Your task to perform on an android device: Clear all items from cart on bestbuy.com. Search for usb-a on bestbuy.com, select the first entry, and add it to the cart. Image 0: 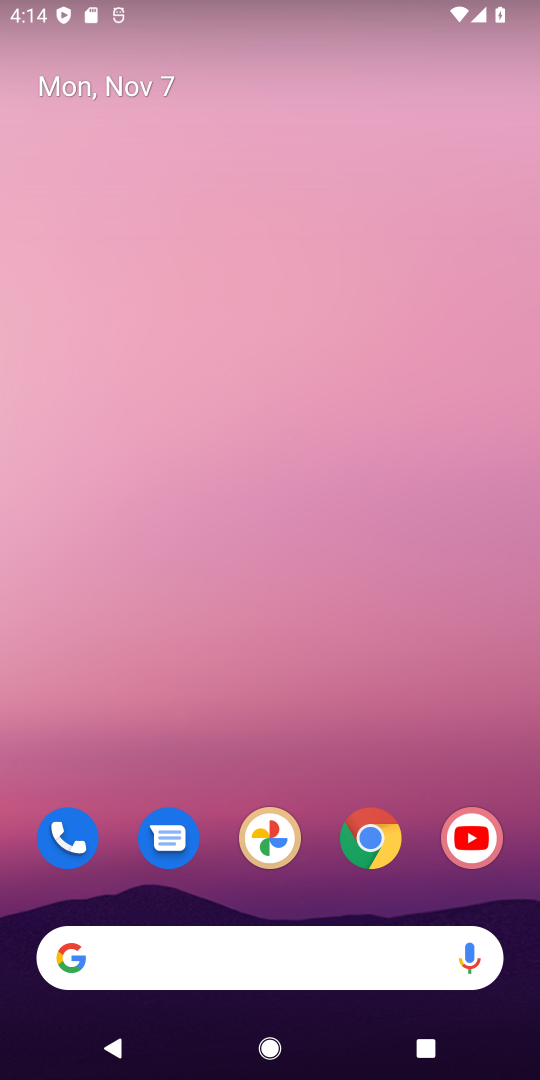
Step 0: click (367, 826)
Your task to perform on an android device: Clear all items from cart on bestbuy.com. Search for usb-a on bestbuy.com, select the first entry, and add it to the cart. Image 1: 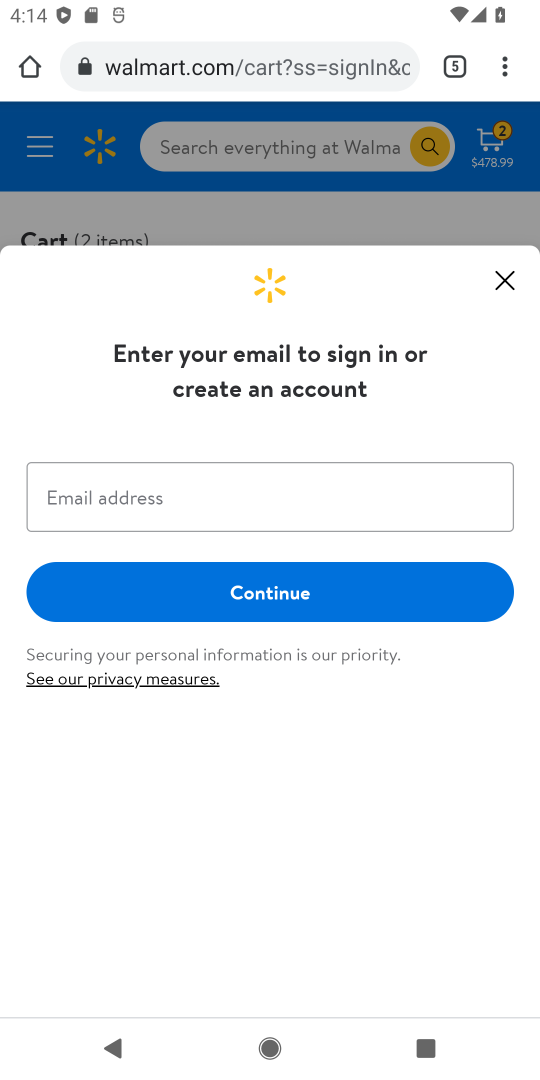
Step 1: click (460, 68)
Your task to perform on an android device: Clear all items from cart on bestbuy.com. Search for usb-a on bestbuy.com, select the first entry, and add it to the cart. Image 2: 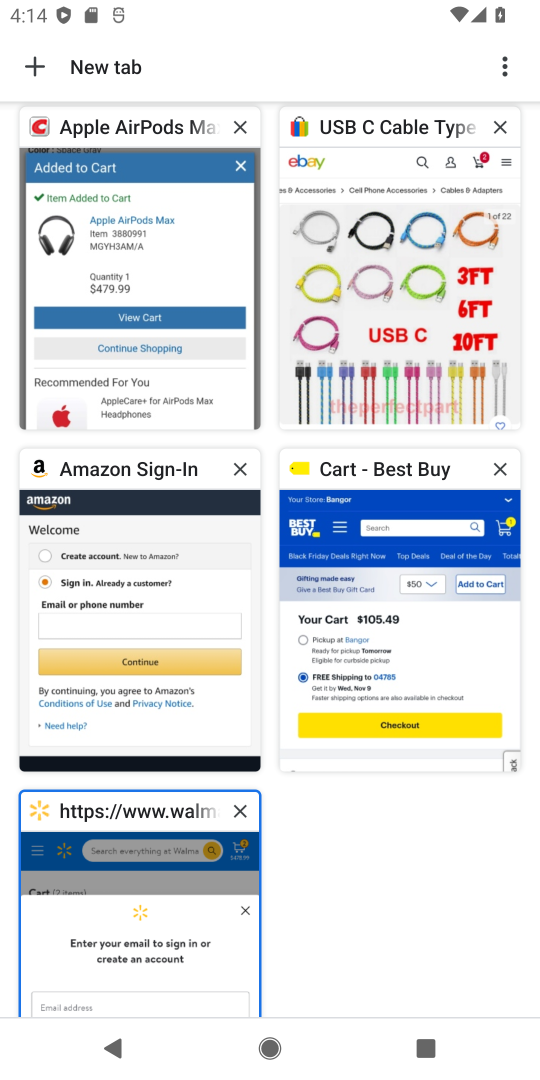
Step 2: click (391, 618)
Your task to perform on an android device: Clear all items from cart on bestbuy.com. Search for usb-a on bestbuy.com, select the first entry, and add it to the cart. Image 3: 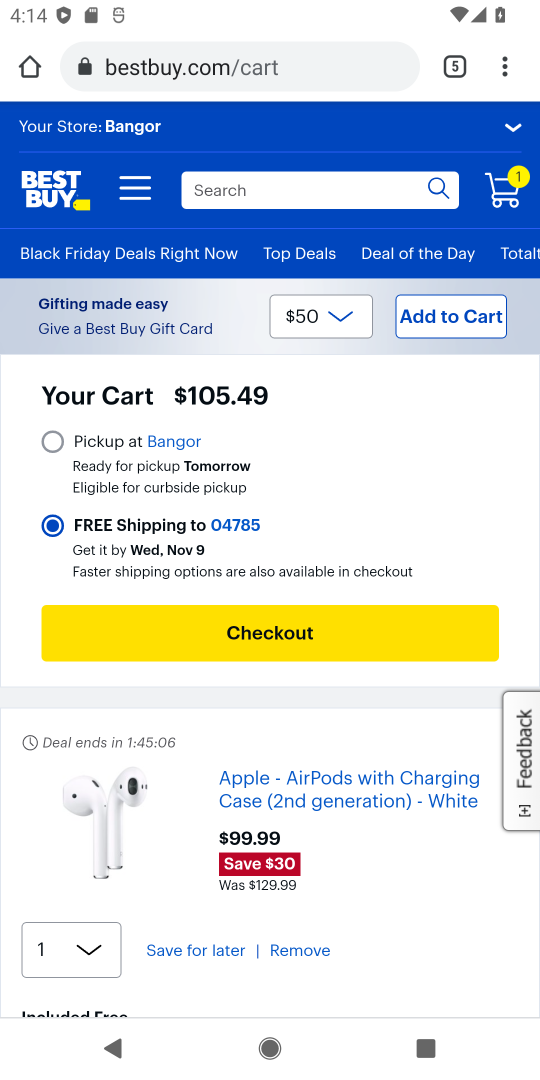
Step 3: click (290, 947)
Your task to perform on an android device: Clear all items from cart on bestbuy.com. Search for usb-a on bestbuy.com, select the first entry, and add it to the cart. Image 4: 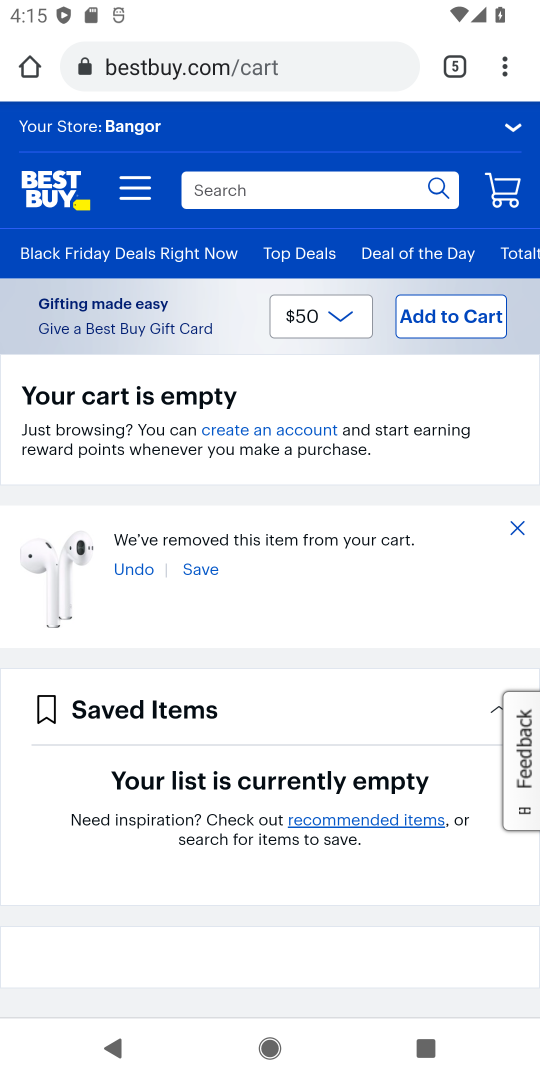
Step 4: click (232, 183)
Your task to perform on an android device: Clear all items from cart on bestbuy.com. Search for usb-a on bestbuy.com, select the first entry, and add it to the cart. Image 5: 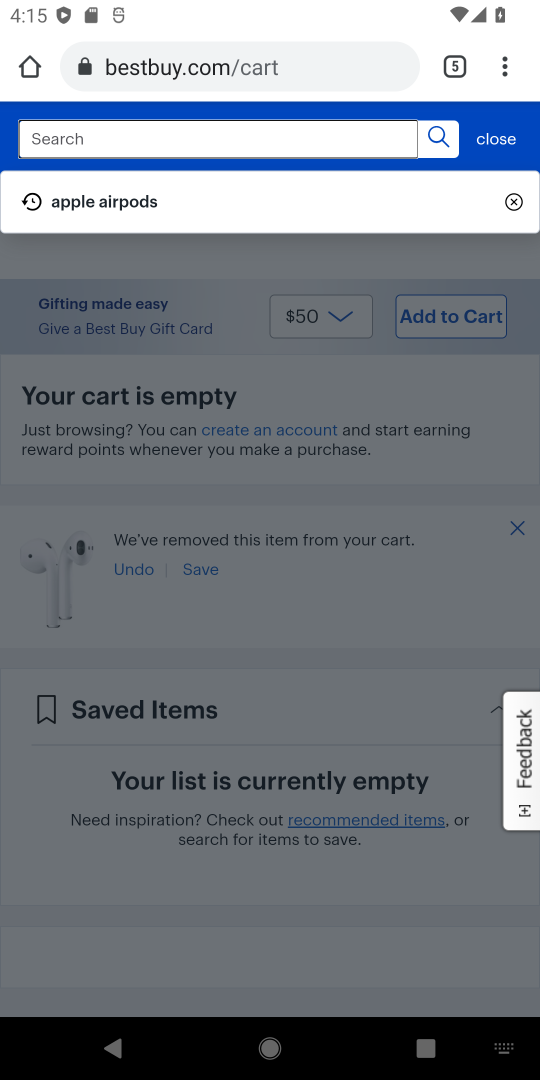
Step 5: type "usb-a"
Your task to perform on an android device: Clear all items from cart on bestbuy.com. Search for usb-a on bestbuy.com, select the first entry, and add it to the cart. Image 6: 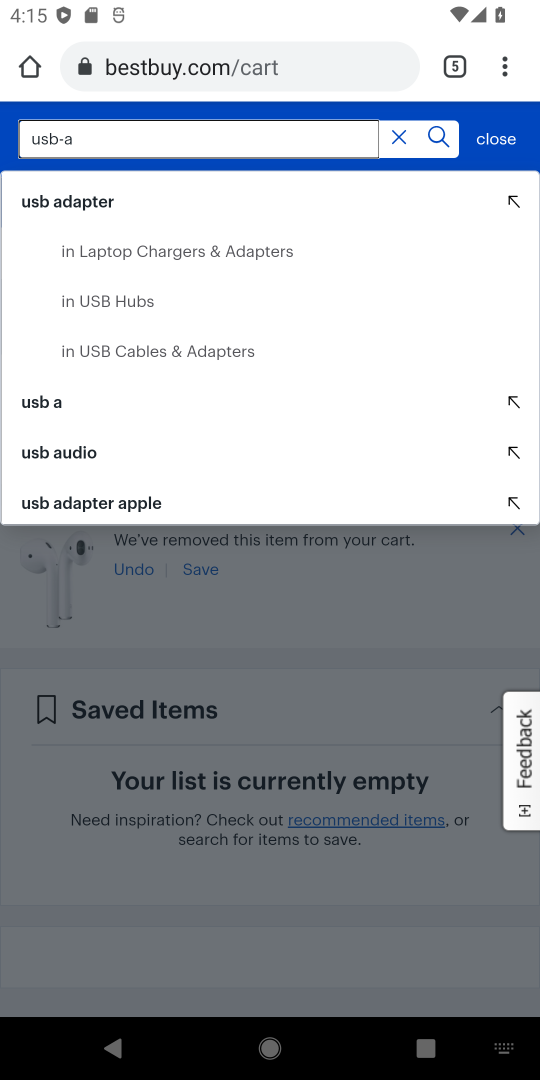
Step 6: click (48, 400)
Your task to perform on an android device: Clear all items from cart on bestbuy.com. Search for usb-a on bestbuy.com, select the first entry, and add it to the cart. Image 7: 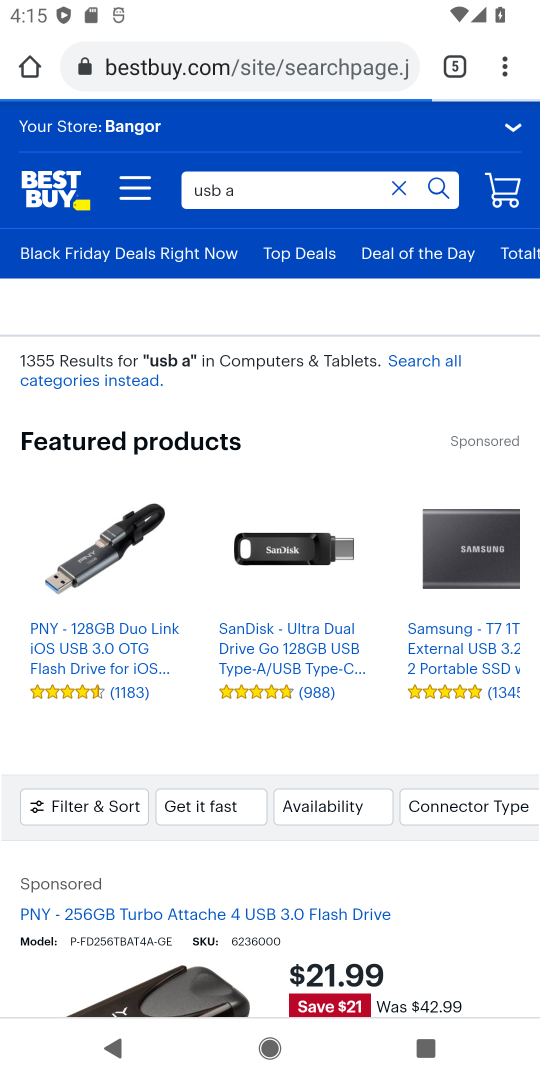
Step 7: drag from (428, 950) to (476, 366)
Your task to perform on an android device: Clear all items from cart on bestbuy.com. Search for usb-a on bestbuy.com, select the first entry, and add it to the cart. Image 8: 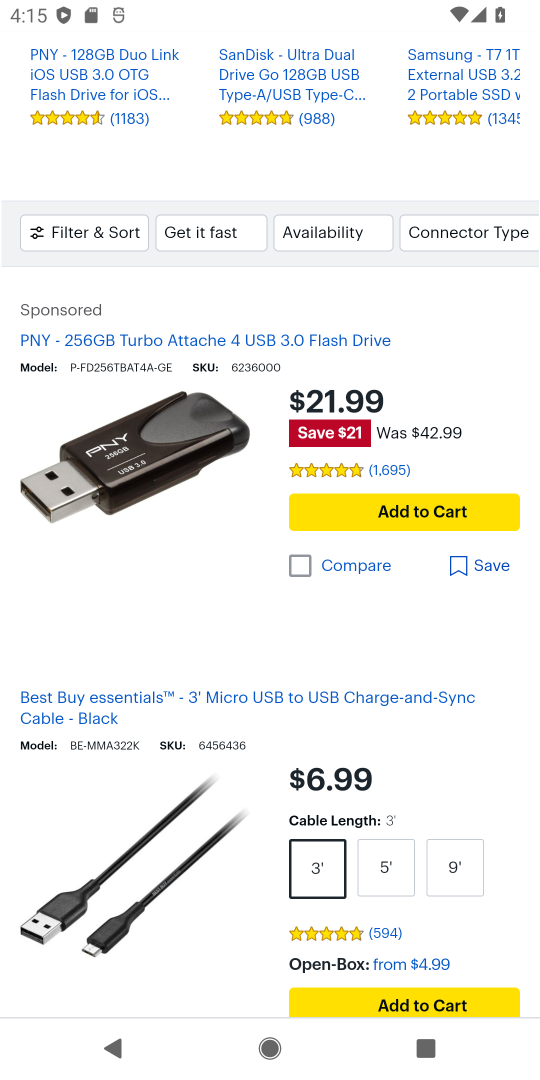
Step 8: click (388, 521)
Your task to perform on an android device: Clear all items from cart on bestbuy.com. Search for usb-a on bestbuy.com, select the first entry, and add it to the cart. Image 9: 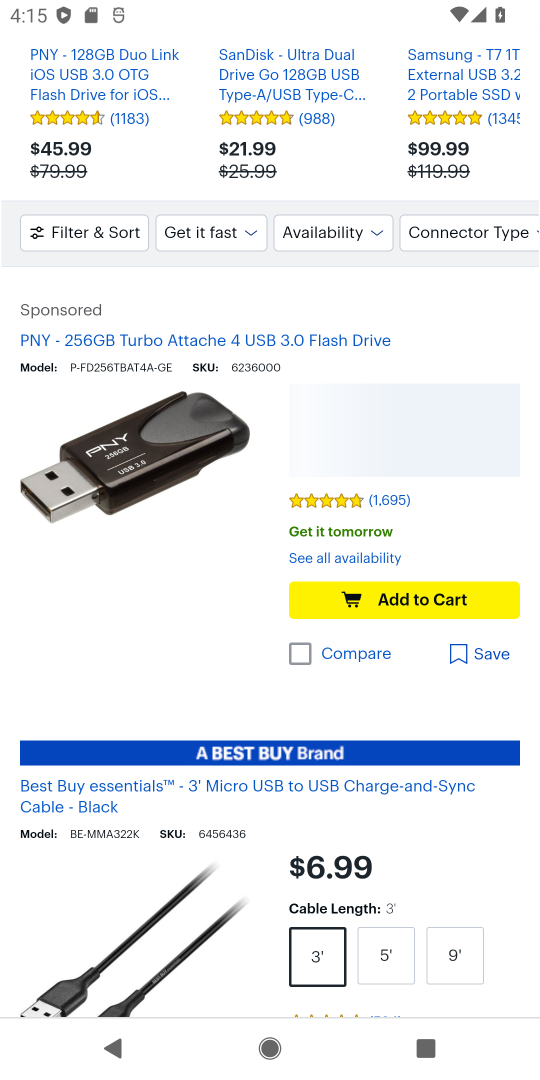
Step 9: task complete